Your task to perform on an android device: change the upload size in google photos Image 0: 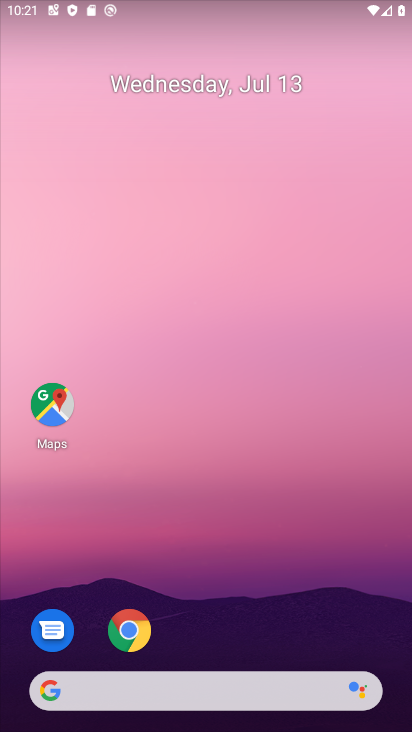
Step 0: drag from (237, 503) to (196, 3)
Your task to perform on an android device: change the upload size in google photos Image 1: 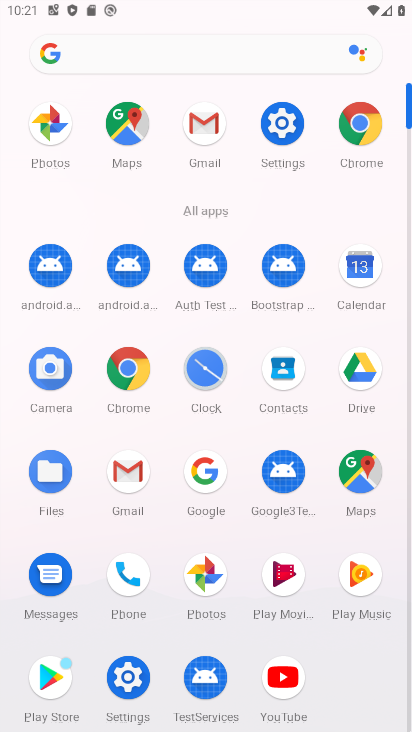
Step 1: click (205, 561)
Your task to perform on an android device: change the upload size in google photos Image 2: 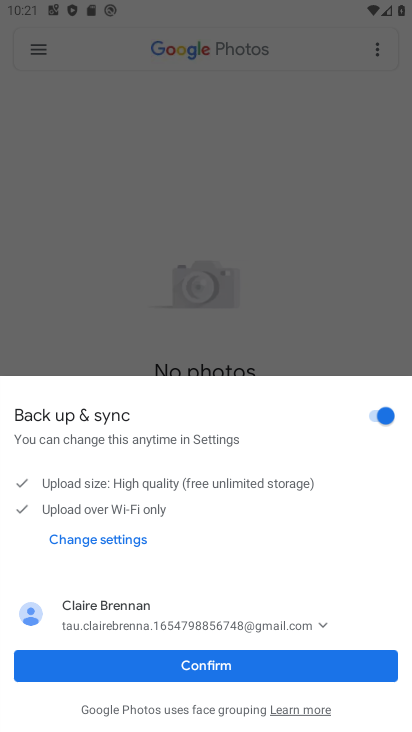
Step 2: click (187, 670)
Your task to perform on an android device: change the upload size in google photos Image 3: 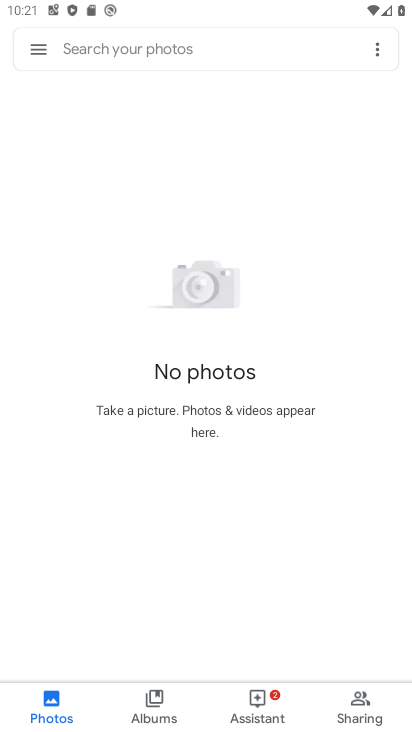
Step 3: click (41, 43)
Your task to perform on an android device: change the upload size in google photos Image 4: 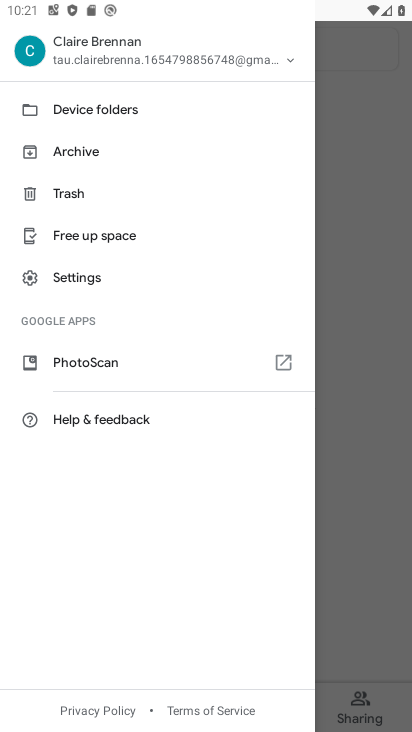
Step 4: click (69, 276)
Your task to perform on an android device: change the upload size in google photos Image 5: 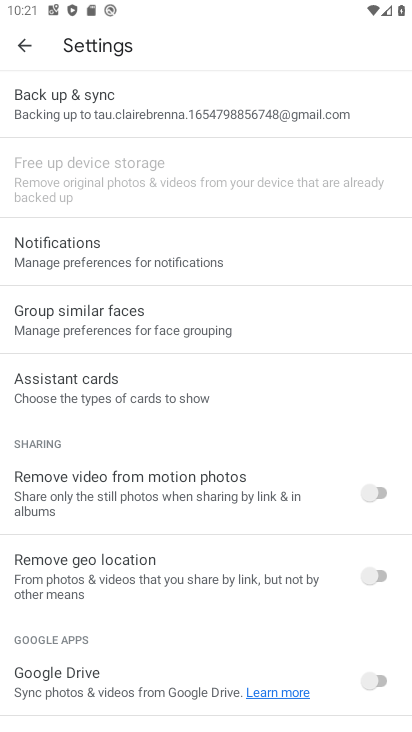
Step 5: click (161, 115)
Your task to perform on an android device: change the upload size in google photos Image 6: 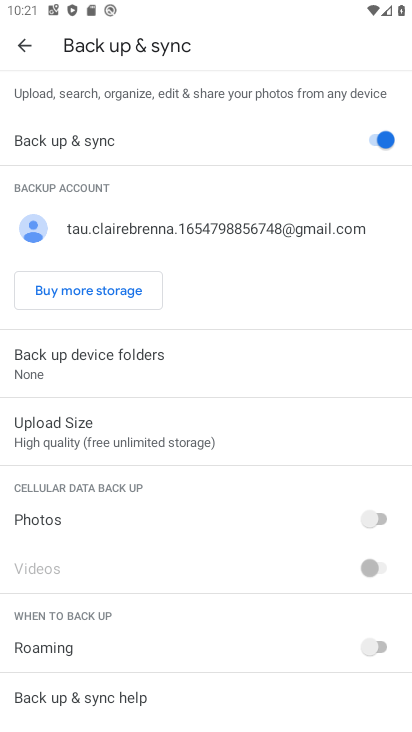
Step 6: click (119, 435)
Your task to perform on an android device: change the upload size in google photos Image 7: 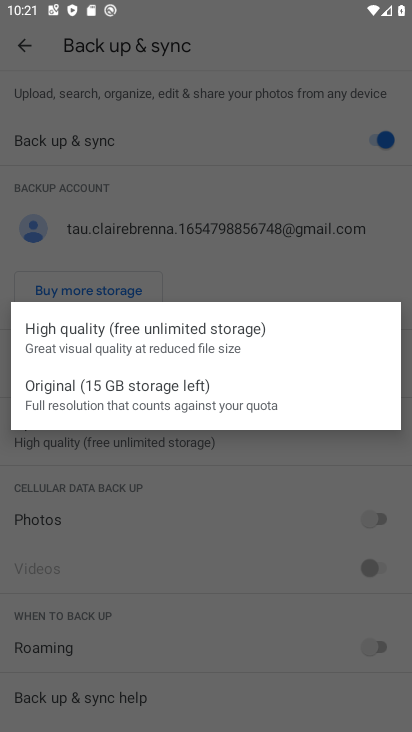
Step 7: click (95, 396)
Your task to perform on an android device: change the upload size in google photos Image 8: 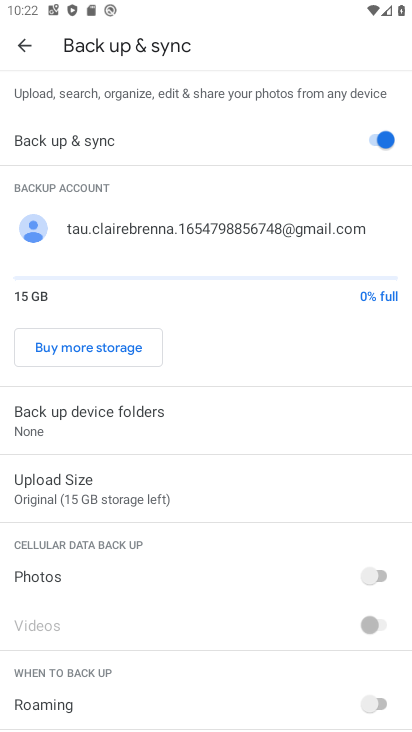
Step 8: task complete